Your task to perform on an android device: Open location settings Image 0: 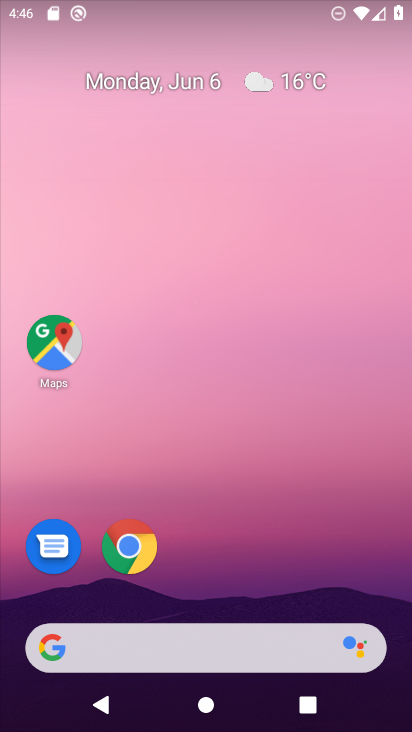
Step 0: drag from (233, 602) to (189, 30)
Your task to perform on an android device: Open location settings Image 1: 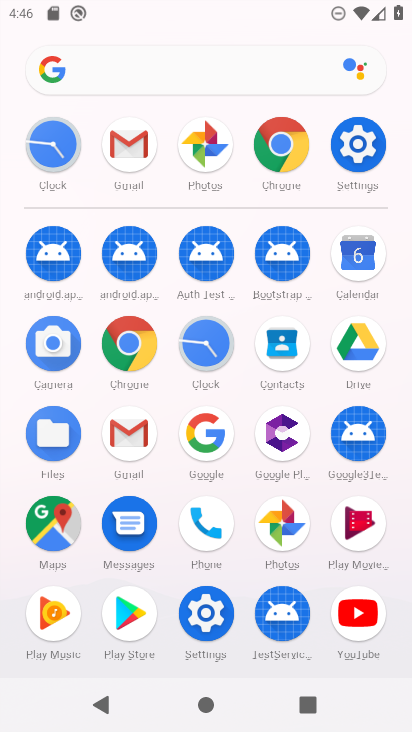
Step 1: click (368, 142)
Your task to perform on an android device: Open location settings Image 2: 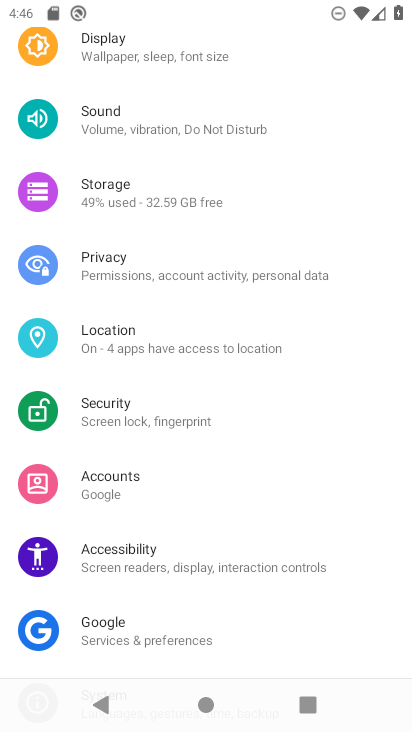
Step 2: click (133, 362)
Your task to perform on an android device: Open location settings Image 3: 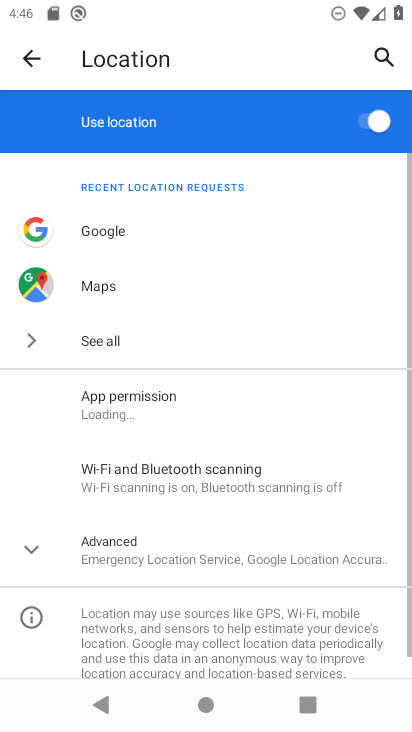
Step 3: task complete